Your task to perform on an android device: turn off priority inbox in the gmail app Image 0: 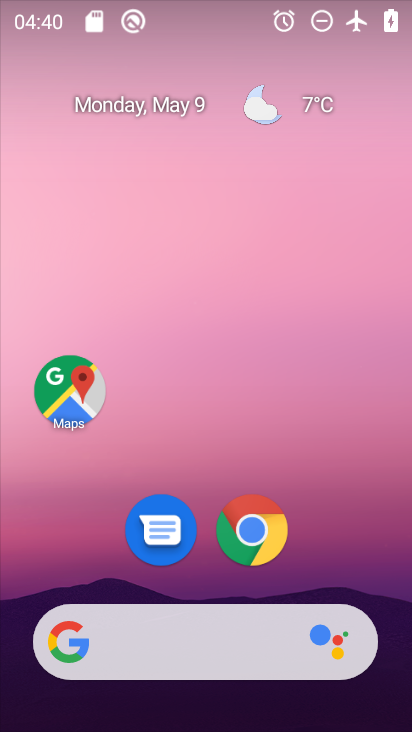
Step 0: drag from (212, 581) to (212, 238)
Your task to perform on an android device: turn off priority inbox in the gmail app Image 1: 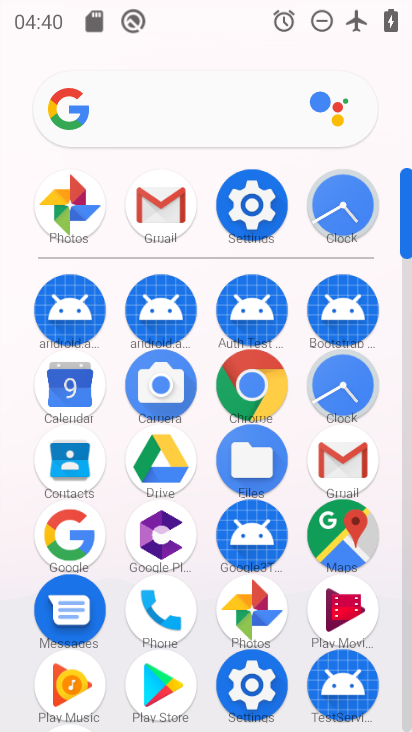
Step 1: click (337, 452)
Your task to perform on an android device: turn off priority inbox in the gmail app Image 2: 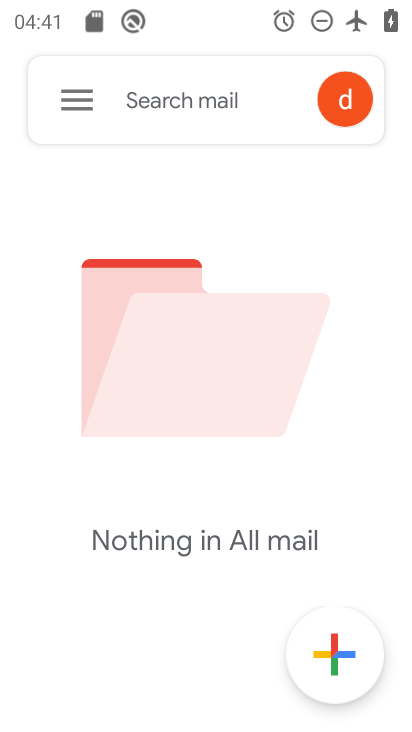
Step 2: click (79, 107)
Your task to perform on an android device: turn off priority inbox in the gmail app Image 3: 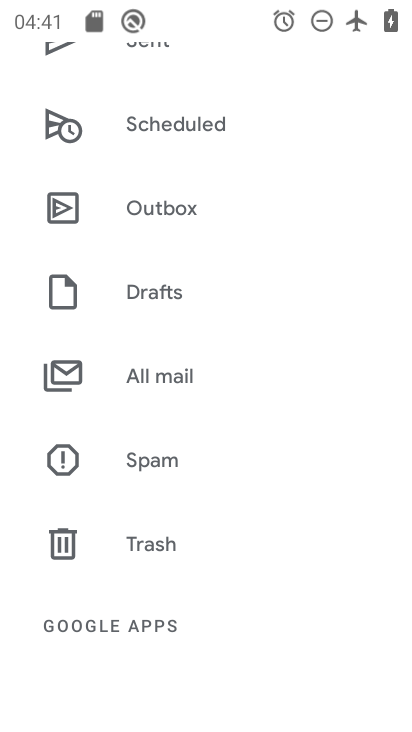
Step 3: drag from (154, 604) to (153, 392)
Your task to perform on an android device: turn off priority inbox in the gmail app Image 4: 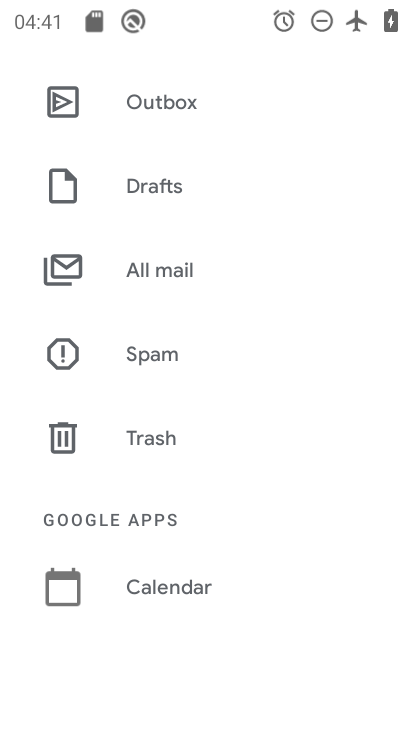
Step 4: drag from (157, 252) to (157, 174)
Your task to perform on an android device: turn off priority inbox in the gmail app Image 5: 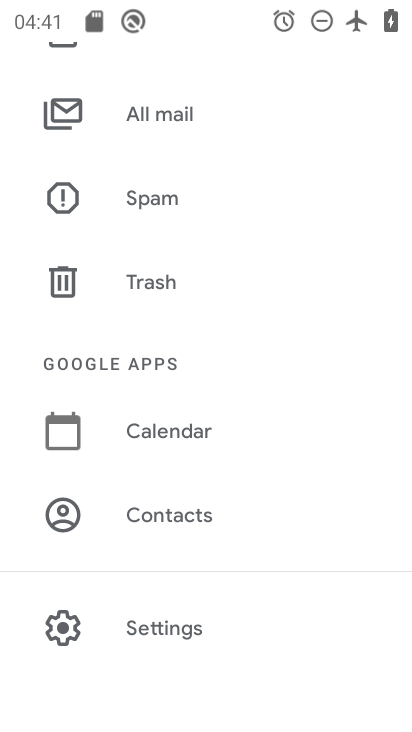
Step 5: click (146, 633)
Your task to perform on an android device: turn off priority inbox in the gmail app Image 6: 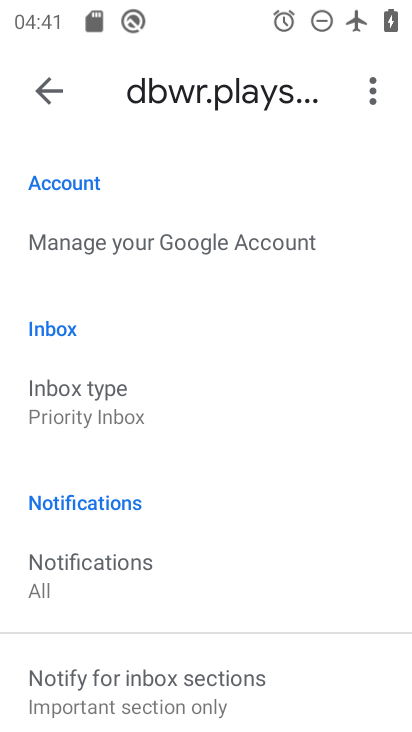
Step 6: click (130, 406)
Your task to perform on an android device: turn off priority inbox in the gmail app Image 7: 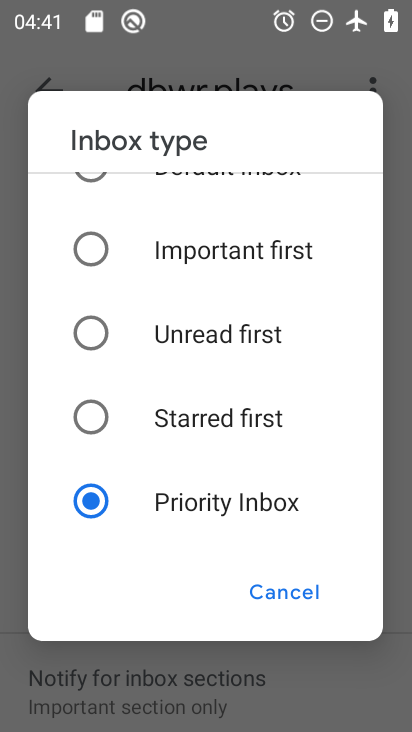
Step 7: click (91, 172)
Your task to perform on an android device: turn off priority inbox in the gmail app Image 8: 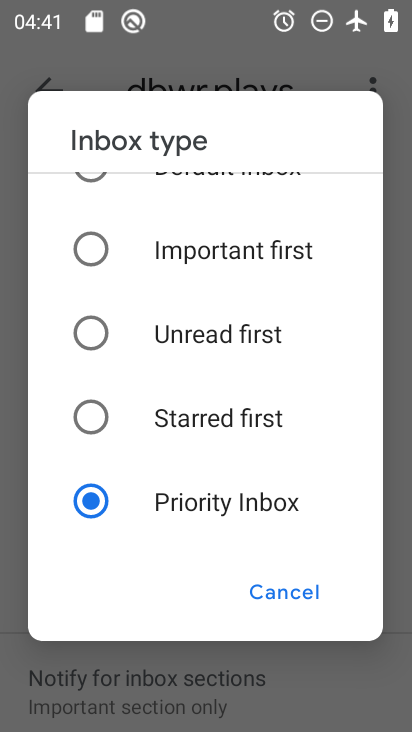
Step 8: drag from (123, 238) to (116, 475)
Your task to perform on an android device: turn off priority inbox in the gmail app Image 9: 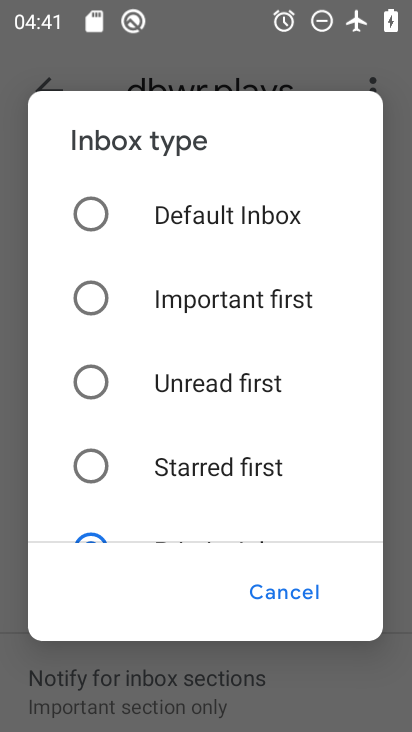
Step 9: click (95, 213)
Your task to perform on an android device: turn off priority inbox in the gmail app Image 10: 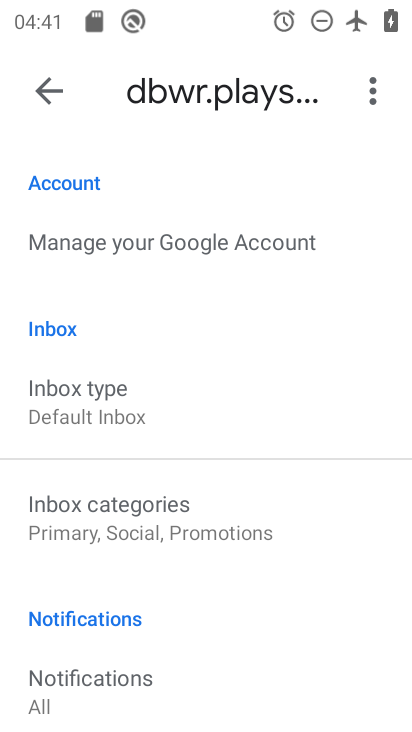
Step 10: task complete